Your task to perform on an android device: find photos in the google photos app Image 0: 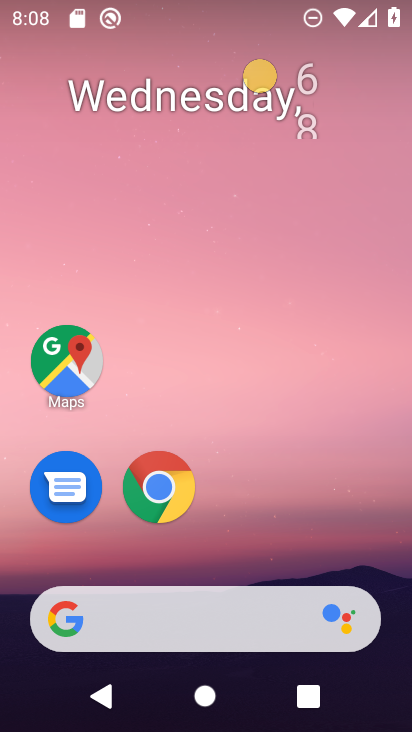
Step 0: drag from (309, 519) to (357, 85)
Your task to perform on an android device: find photos in the google photos app Image 1: 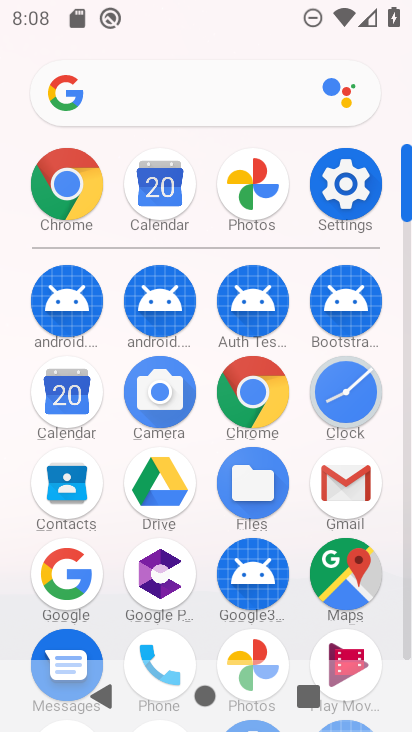
Step 1: click (254, 192)
Your task to perform on an android device: find photos in the google photos app Image 2: 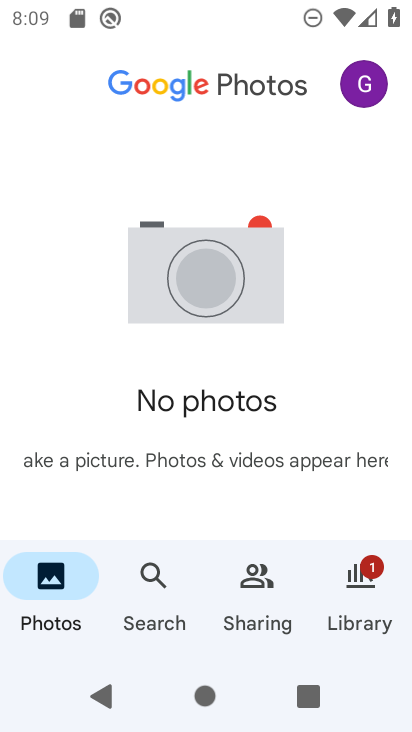
Step 2: task complete